Your task to perform on an android device: empty trash in google photos Image 0: 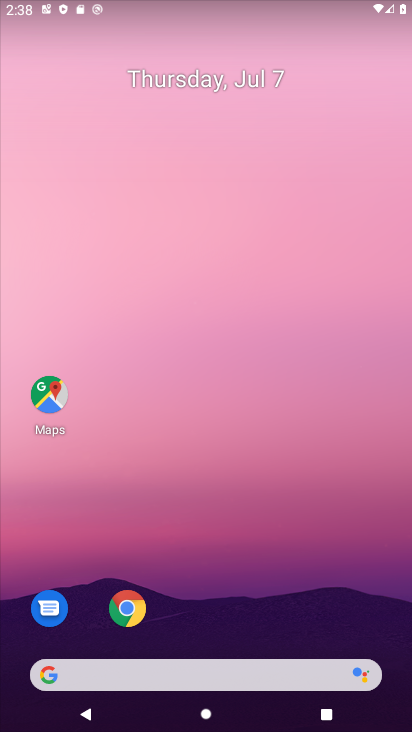
Step 0: drag from (398, 674) to (334, 53)
Your task to perform on an android device: empty trash in google photos Image 1: 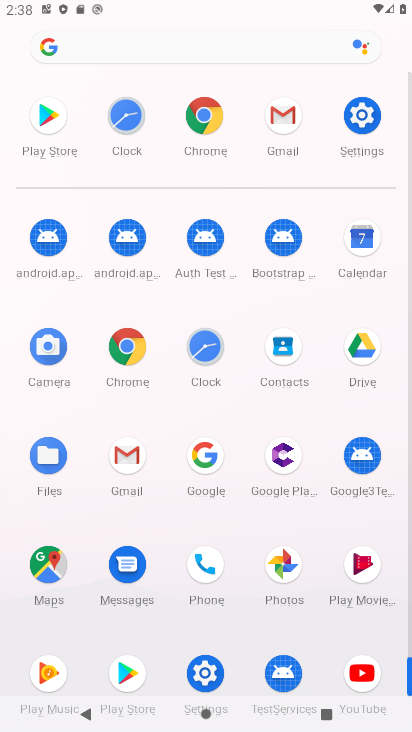
Step 1: click (284, 566)
Your task to perform on an android device: empty trash in google photos Image 2: 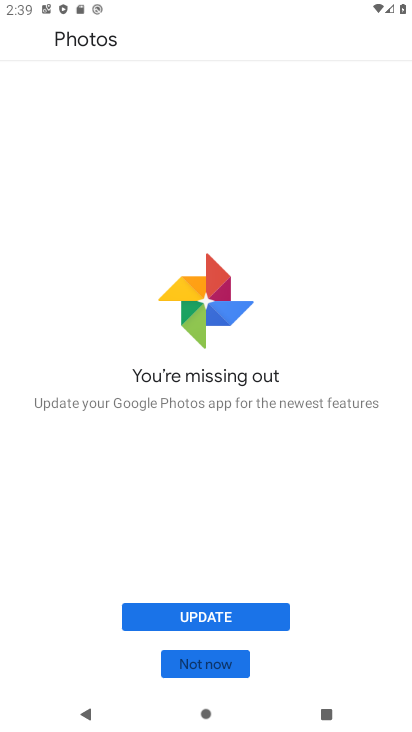
Step 2: click (199, 615)
Your task to perform on an android device: empty trash in google photos Image 3: 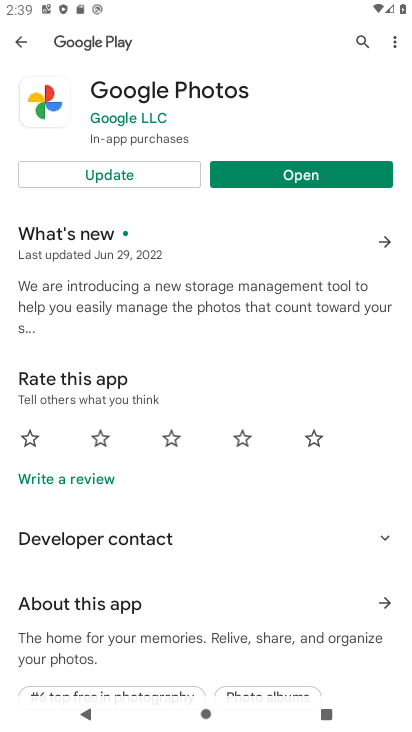
Step 3: click (111, 174)
Your task to perform on an android device: empty trash in google photos Image 4: 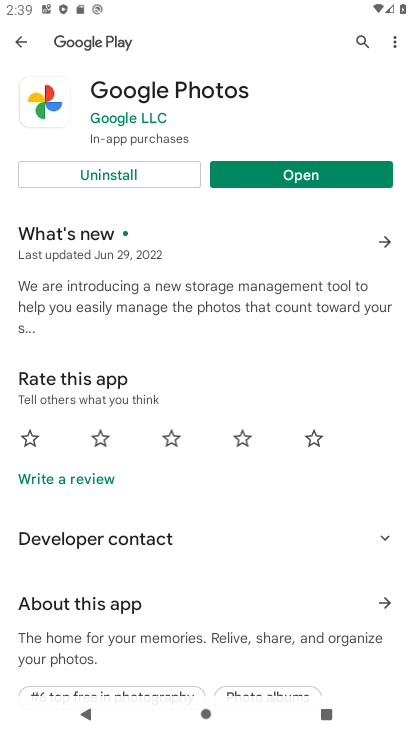
Step 4: click (302, 173)
Your task to perform on an android device: empty trash in google photos Image 5: 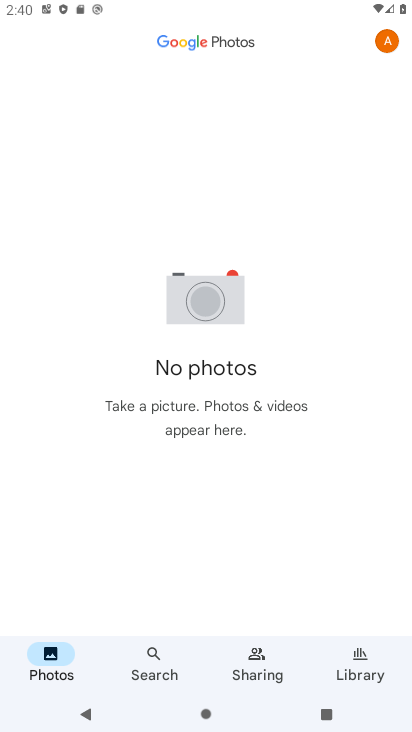
Step 5: click (367, 679)
Your task to perform on an android device: empty trash in google photos Image 6: 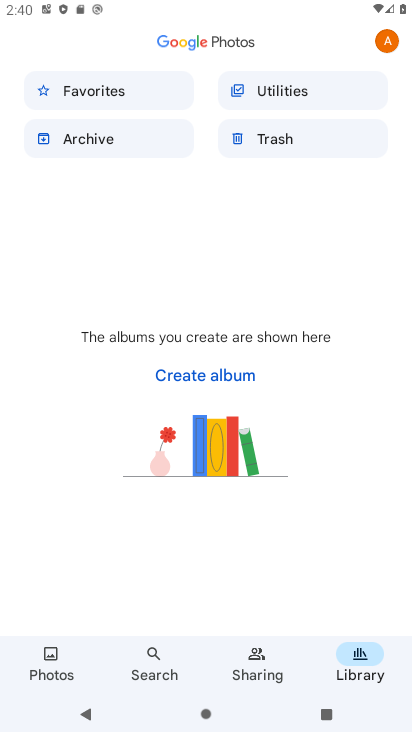
Step 6: click (276, 138)
Your task to perform on an android device: empty trash in google photos Image 7: 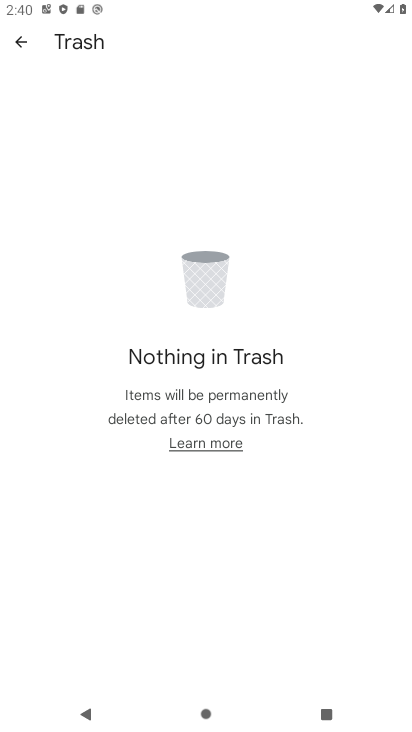
Step 7: task complete